Your task to perform on an android device: When is my next appointment? Image 0: 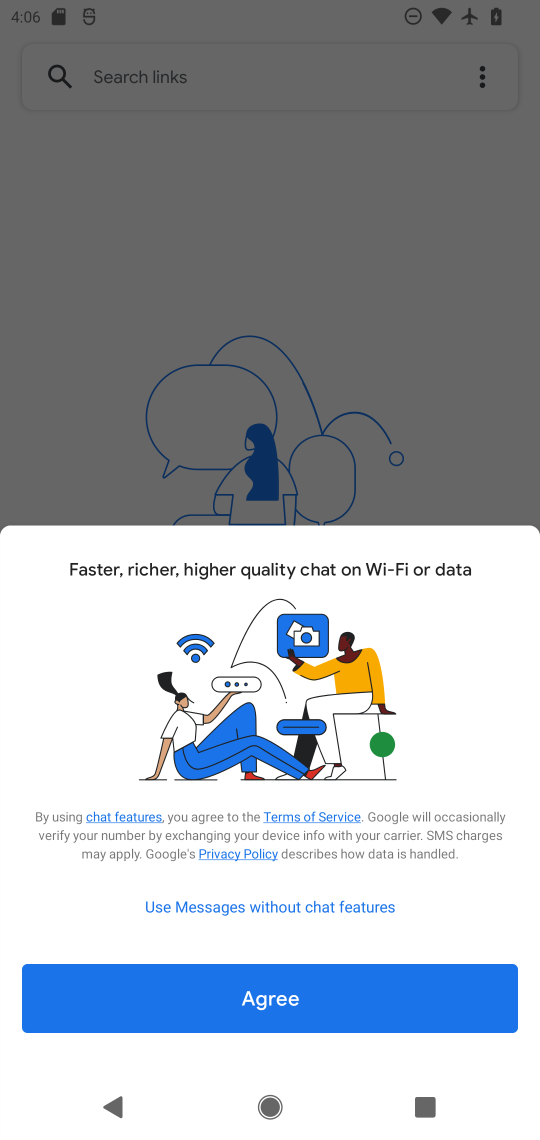
Step 0: press home button
Your task to perform on an android device: When is my next appointment? Image 1: 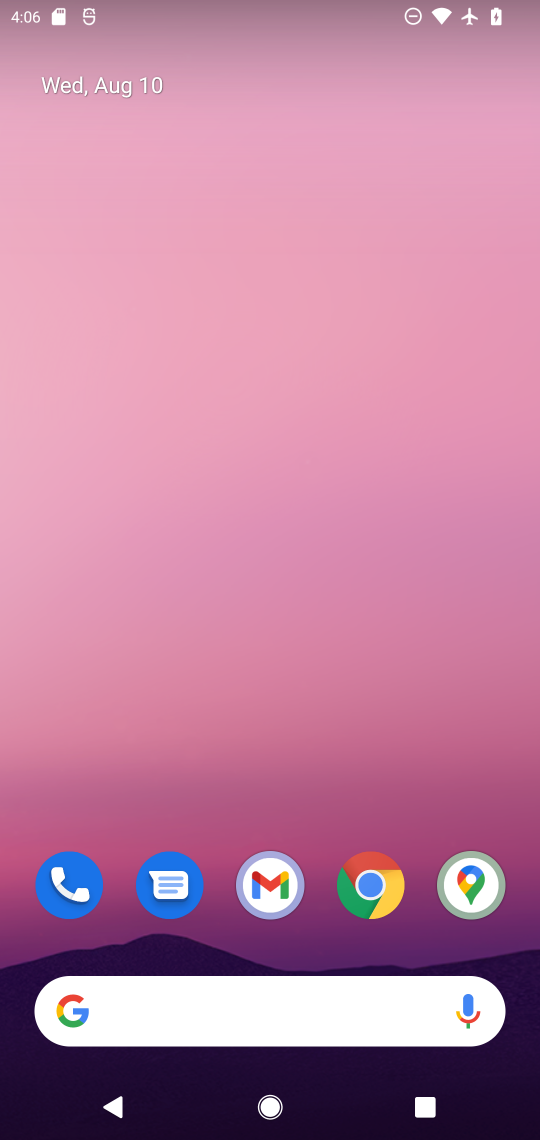
Step 1: drag from (311, 948) to (282, 79)
Your task to perform on an android device: When is my next appointment? Image 2: 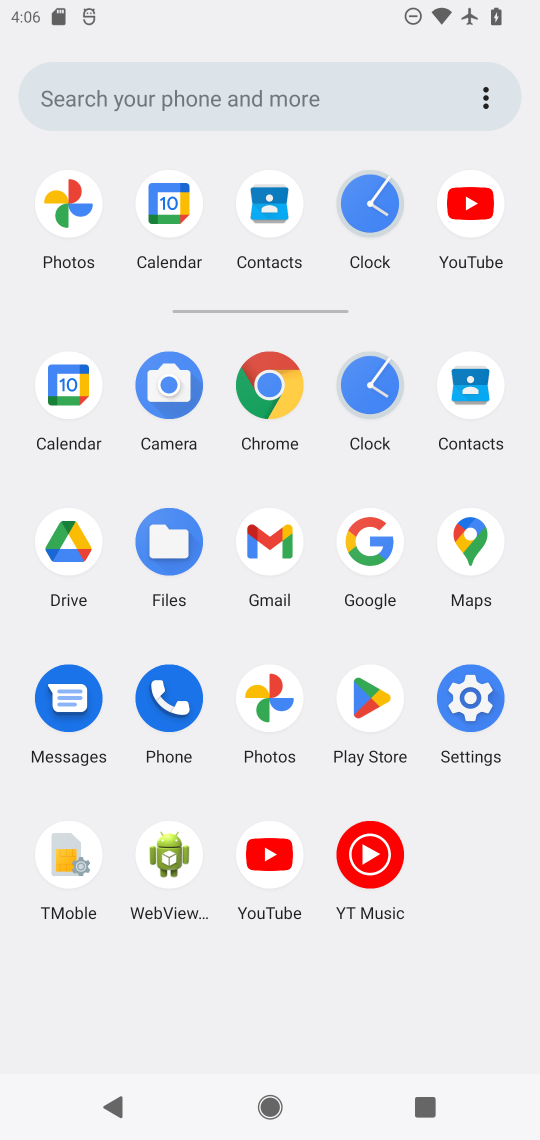
Step 2: click (72, 390)
Your task to perform on an android device: When is my next appointment? Image 3: 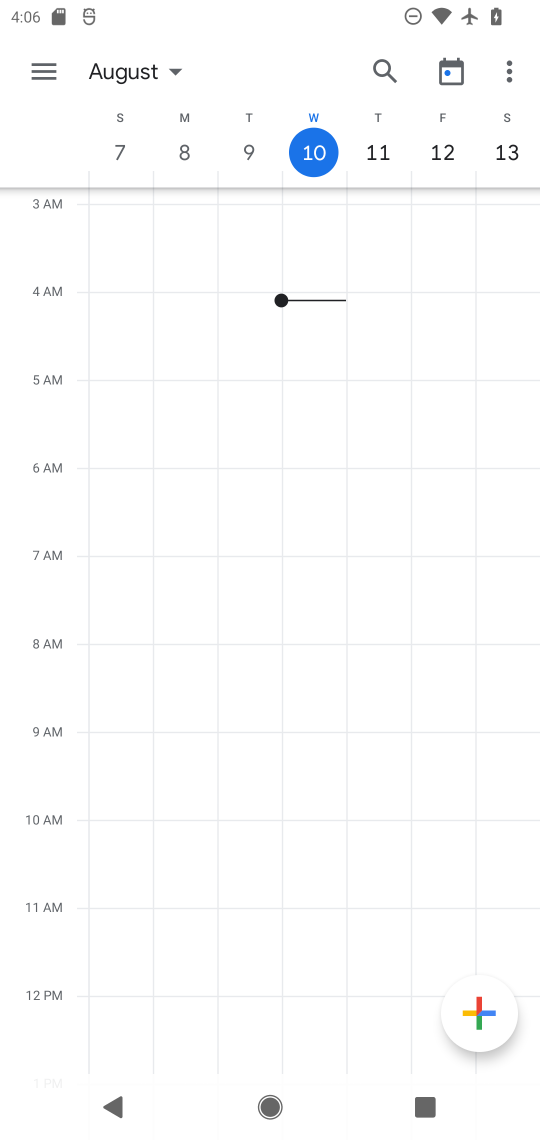
Step 3: task complete